Your task to perform on an android device: Open calendar and show me the third week of next month Image 0: 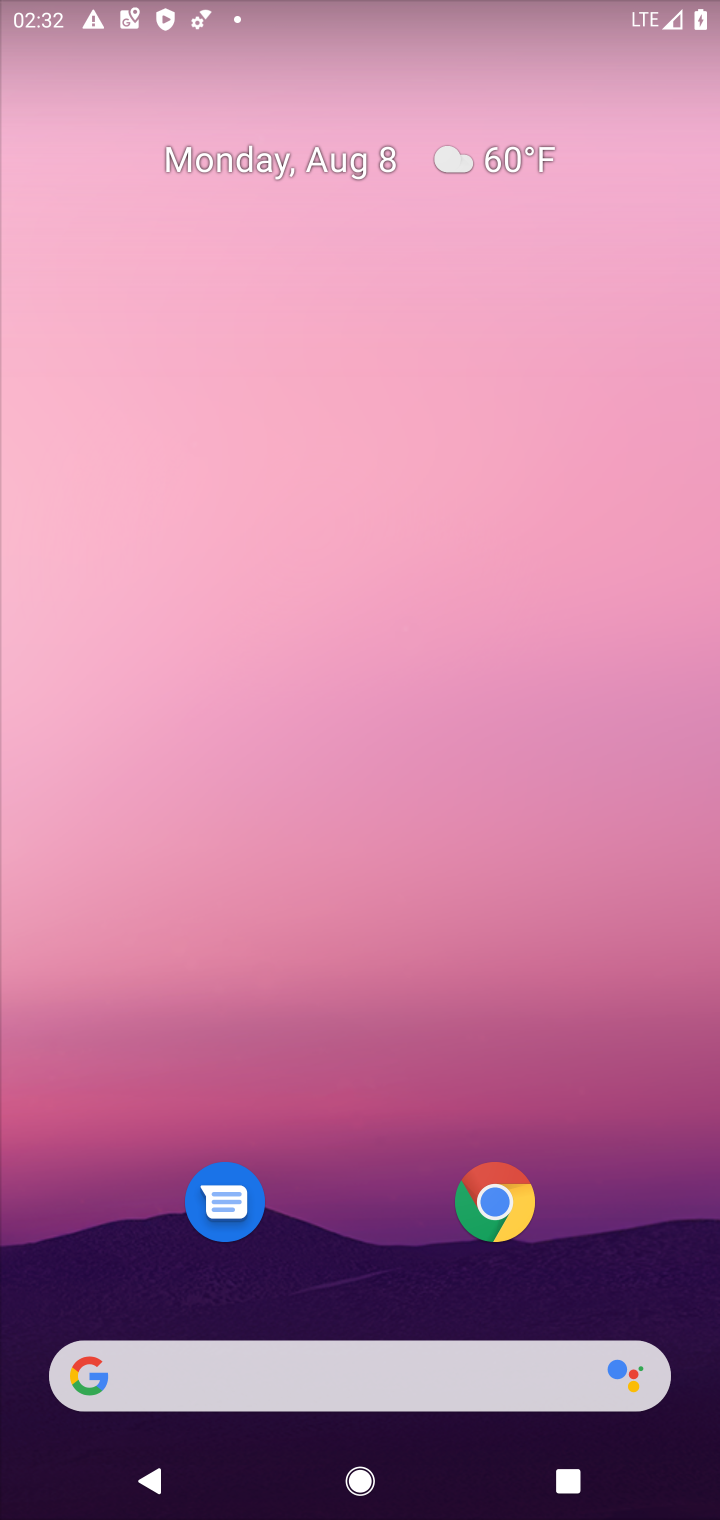
Step 0: drag from (328, 1136) to (435, 42)
Your task to perform on an android device: Open calendar and show me the third week of next month Image 1: 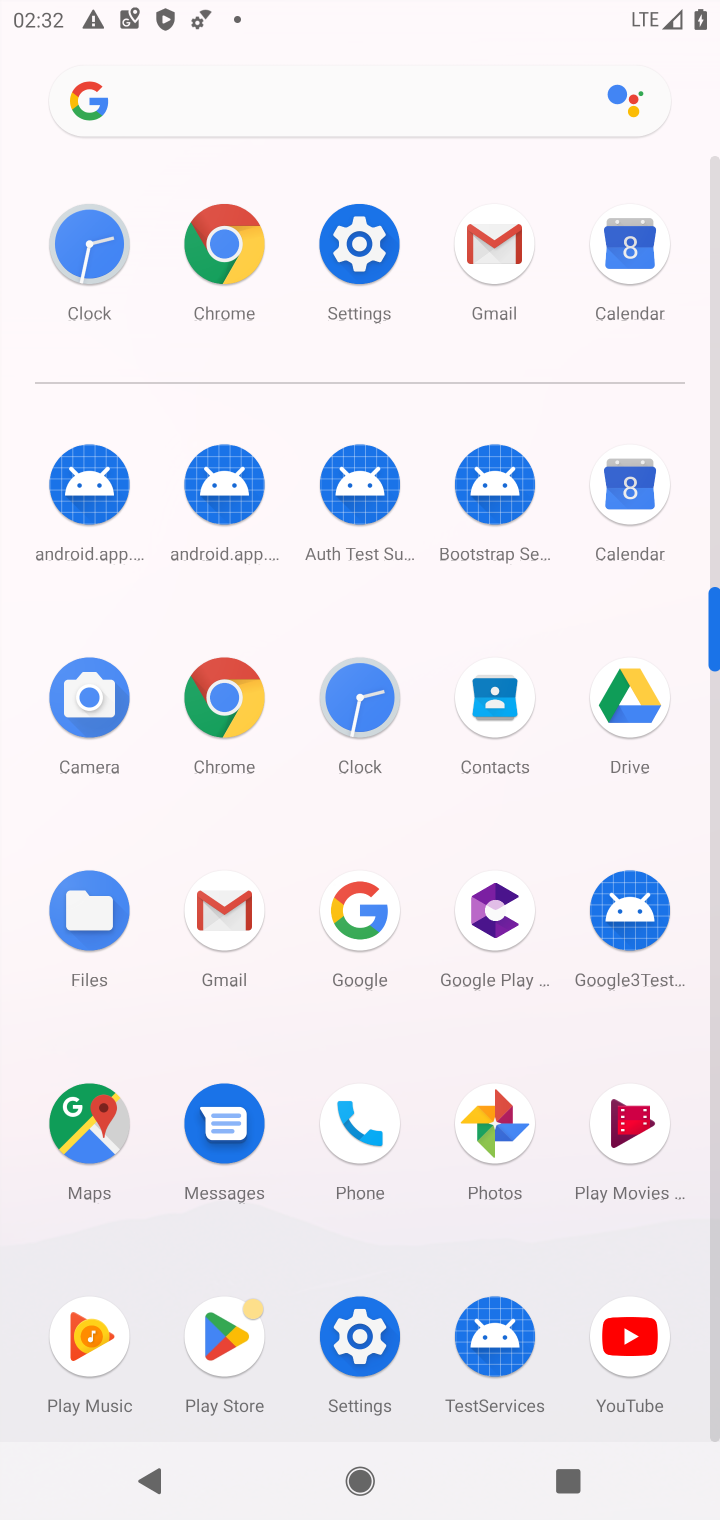
Step 1: click (625, 604)
Your task to perform on an android device: Open calendar and show me the third week of next month Image 2: 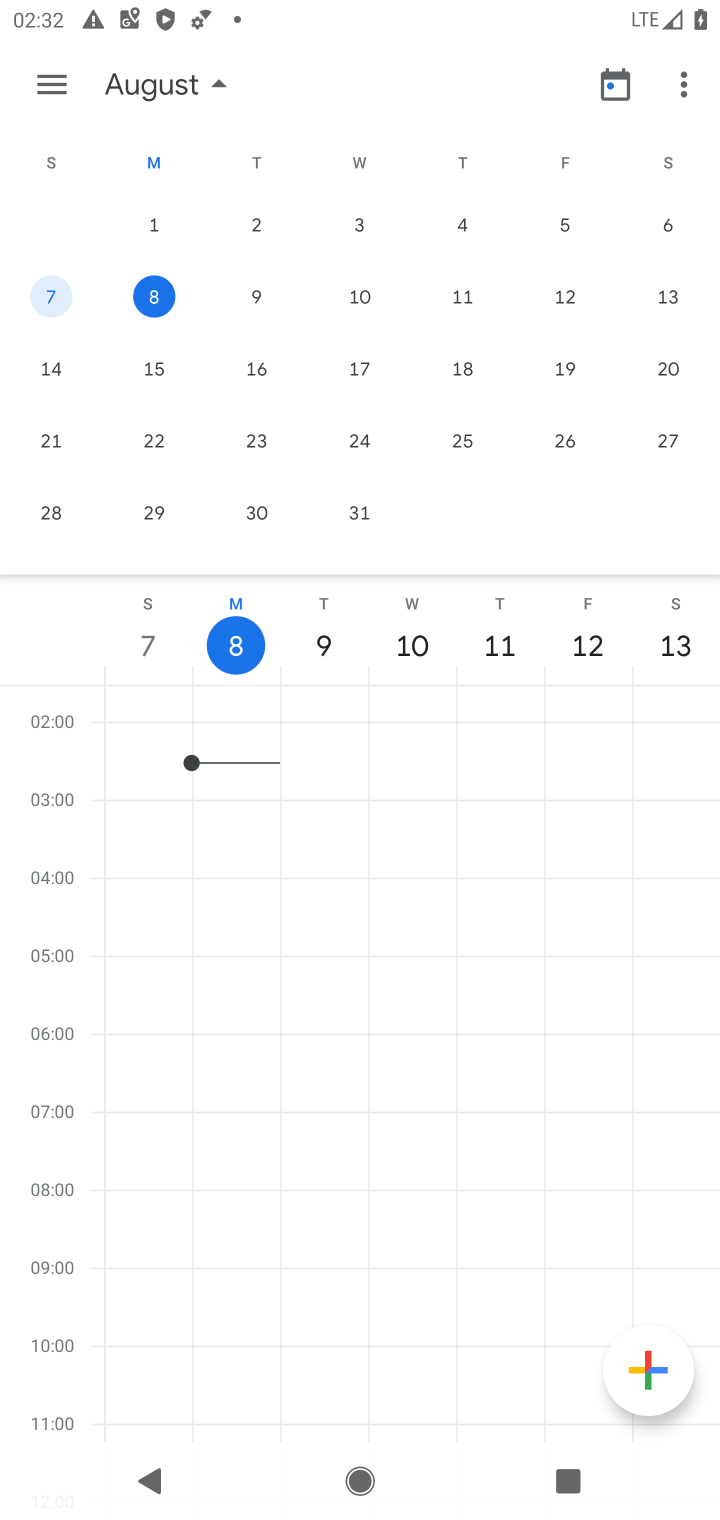
Step 2: click (148, 94)
Your task to perform on an android device: Open calendar and show me the third week of next month Image 3: 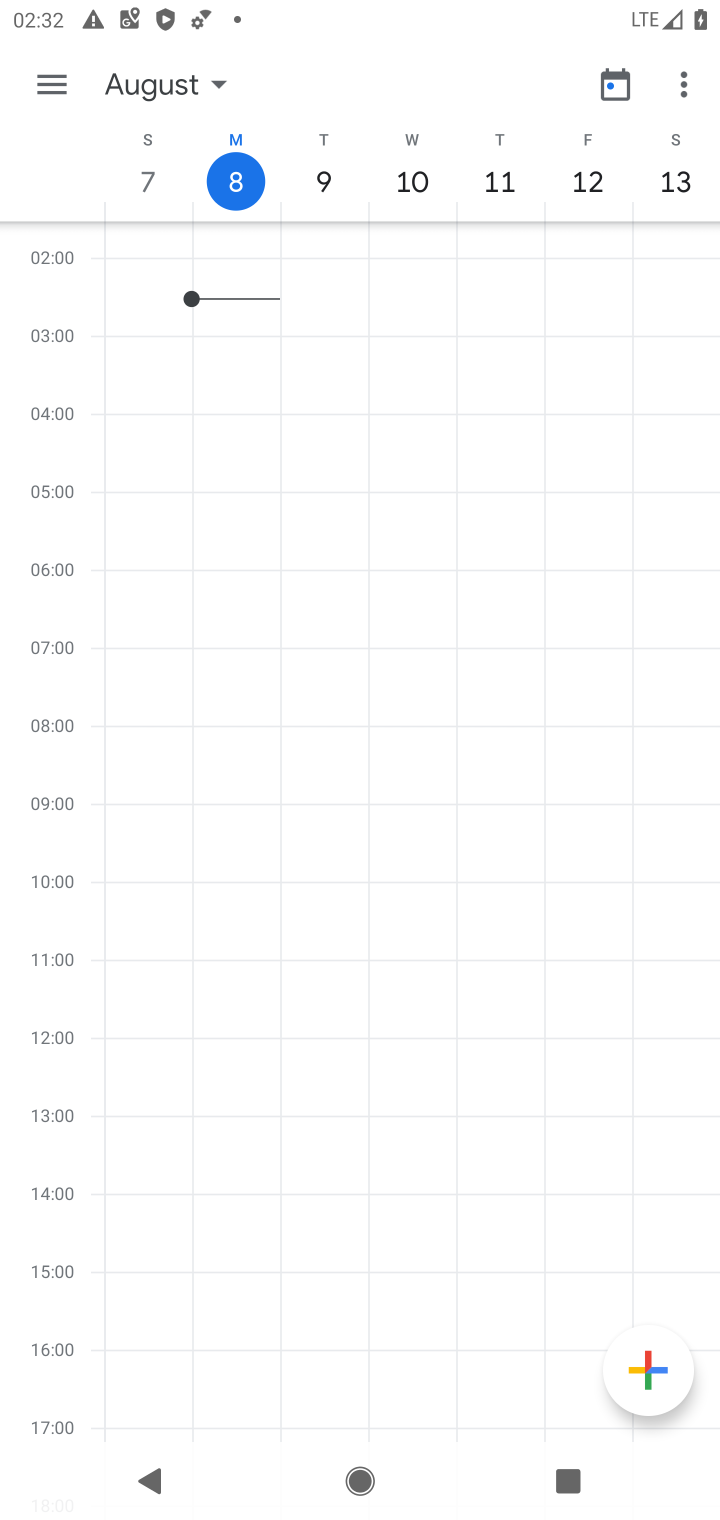
Step 3: click (45, 83)
Your task to perform on an android device: Open calendar and show me the third week of next month Image 4: 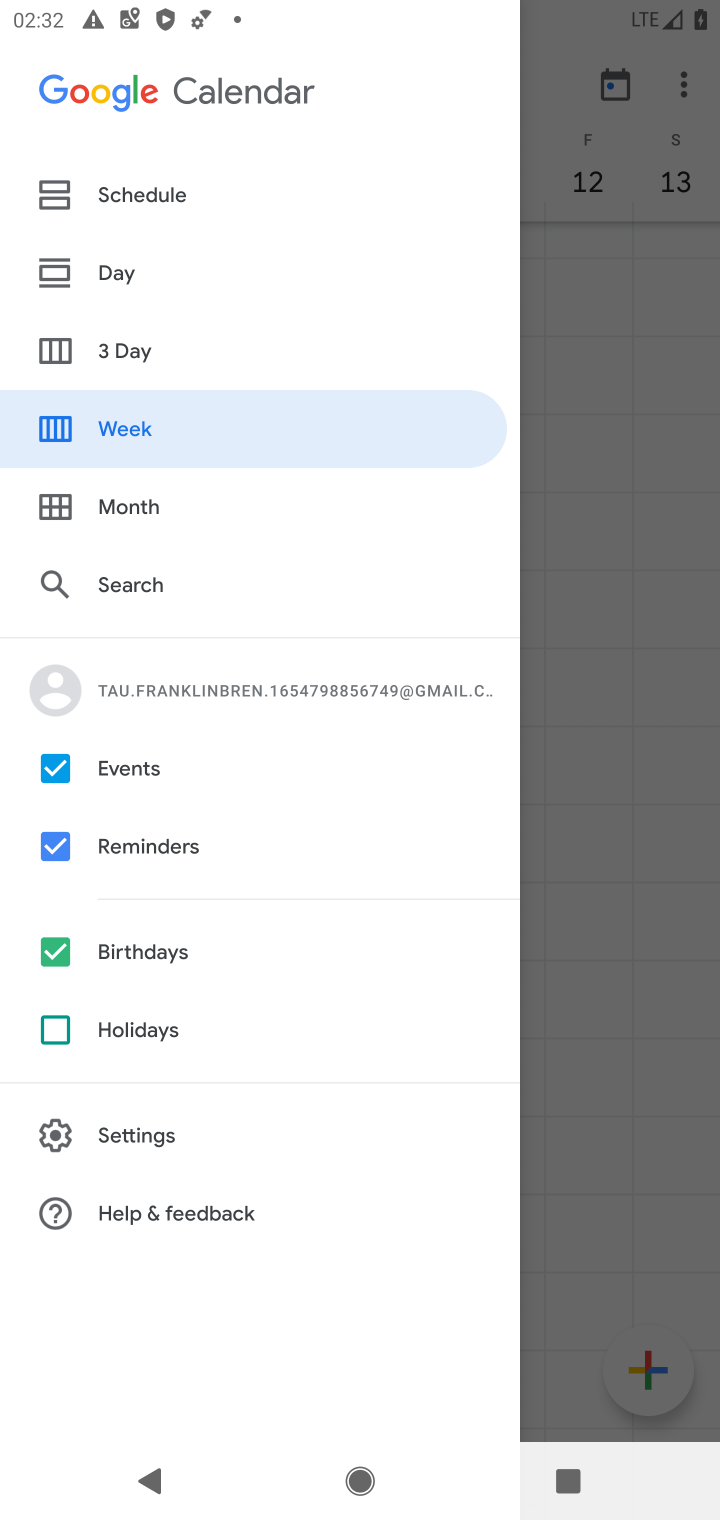
Step 4: click (113, 431)
Your task to perform on an android device: Open calendar and show me the third week of next month Image 5: 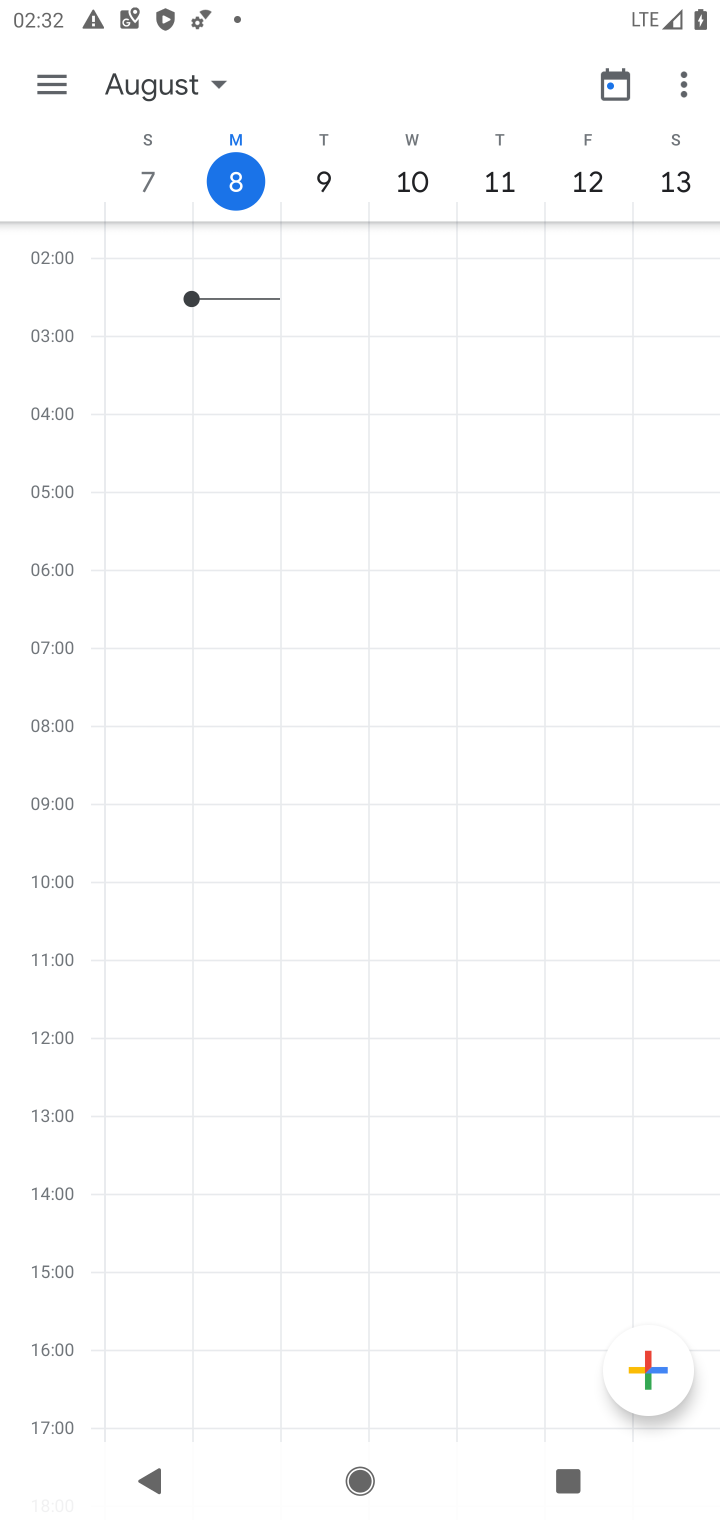
Step 5: click (193, 74)
Your task to perform on an android device: Open calendar and show me the third week of next month Image 6: 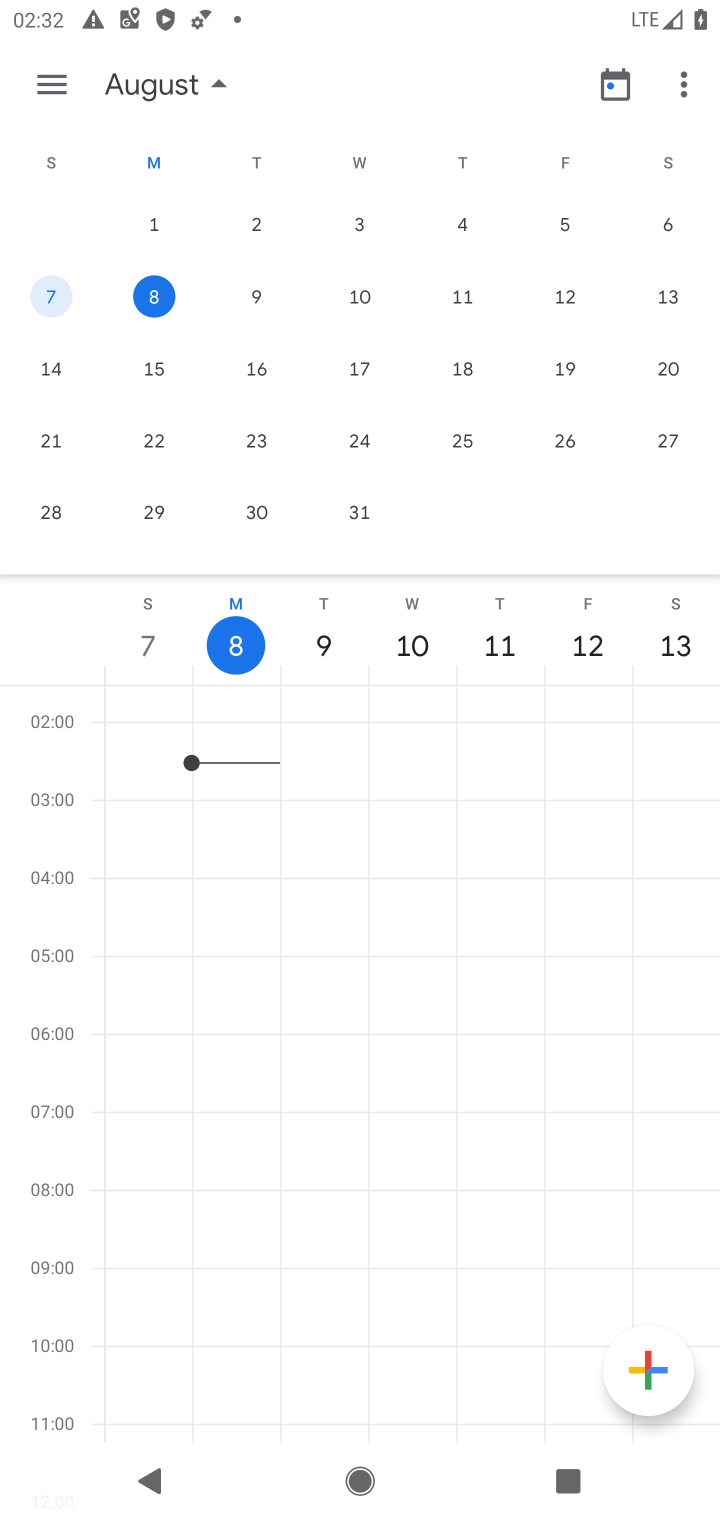
Step 6: drag from (676, 311) to (17, 377)
Your task to perform on an android device: Open calendar and show me the third week of next month Image 7: 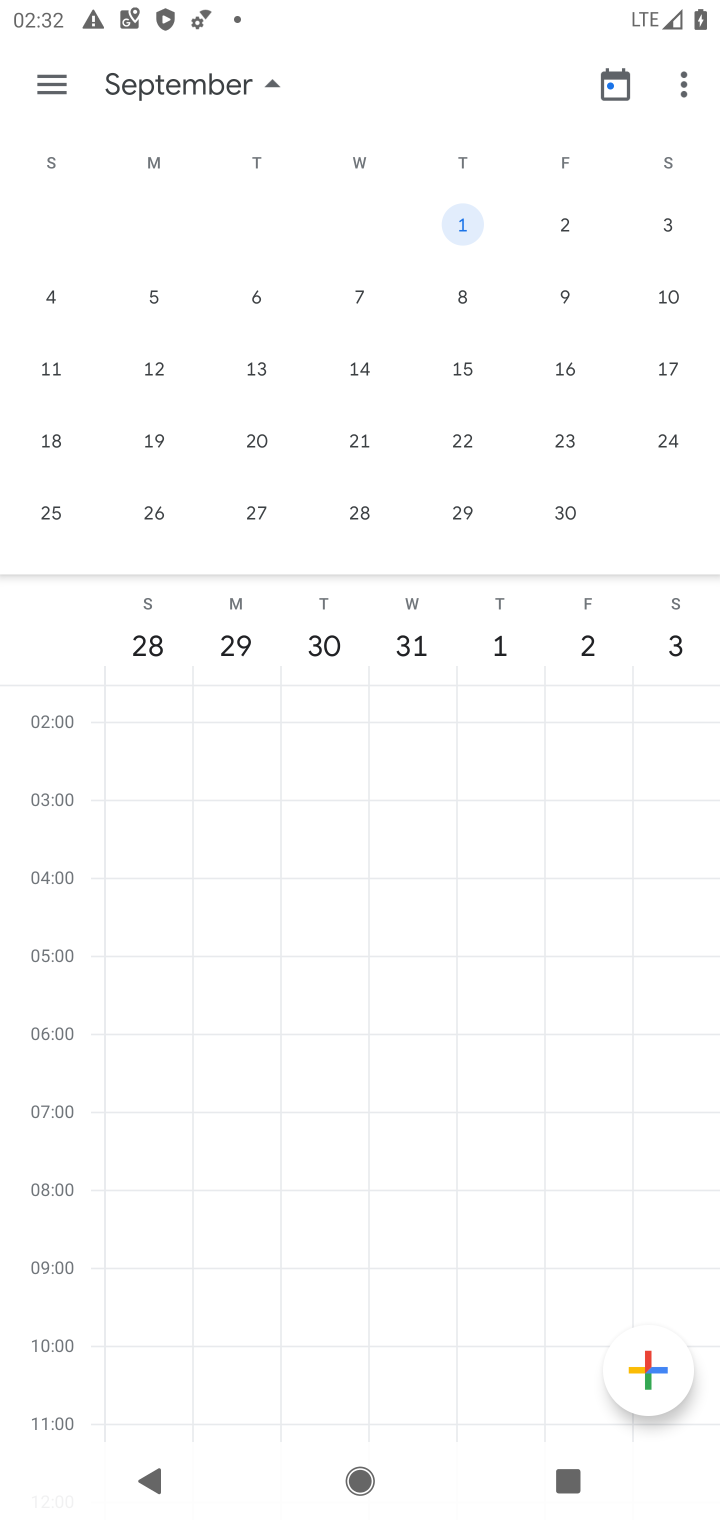
Step 7: click (46, 374)
Your task to perform on an android device: Open calendar and show me the third week of next month Image 8: 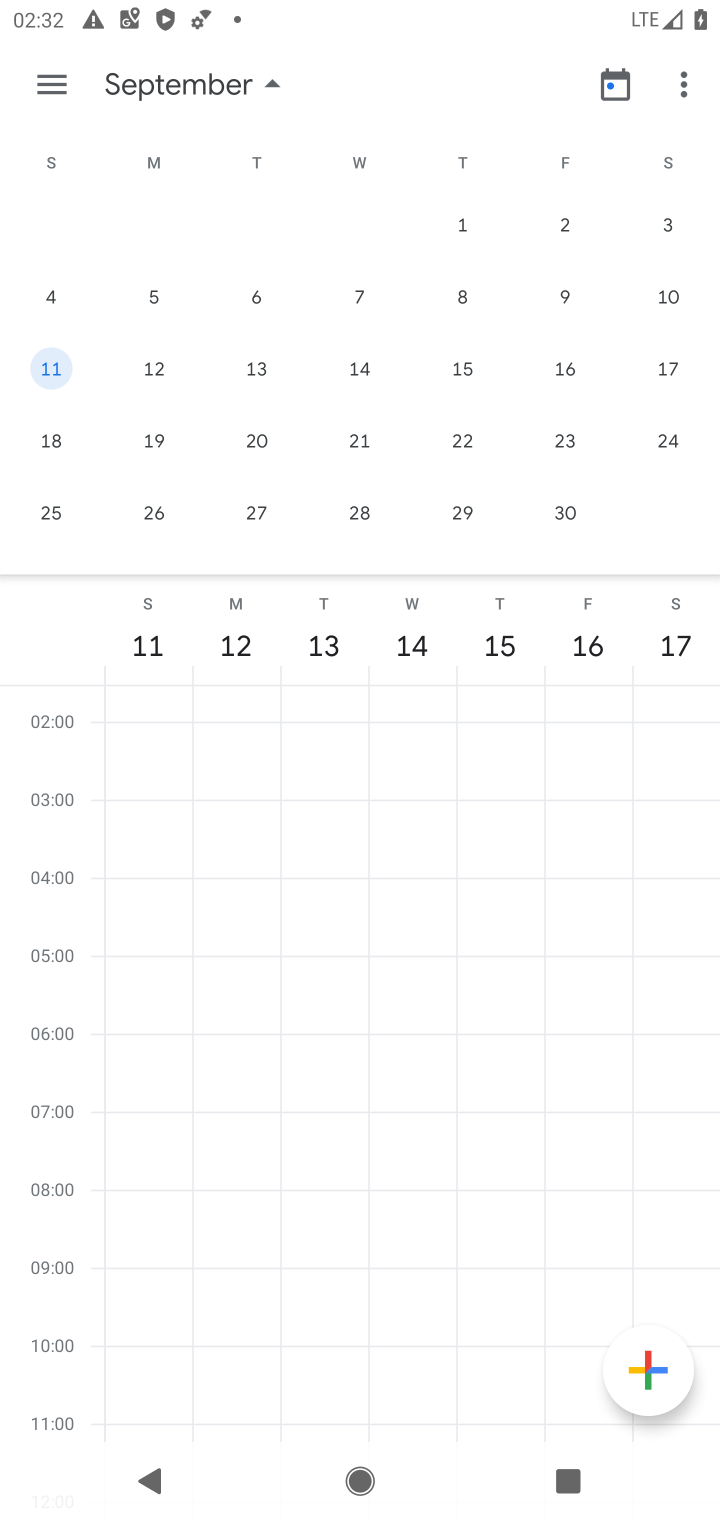
Step 8: task complete